Your task to perform on an android device: set default search engine in the chrome app Image 0: 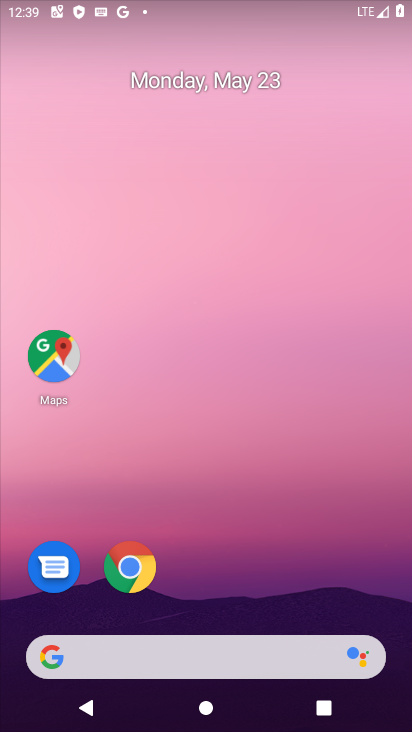
Step 0: click (150, 568)
Your task to perform on an android device: set default search engine in the chrome app Image 1: 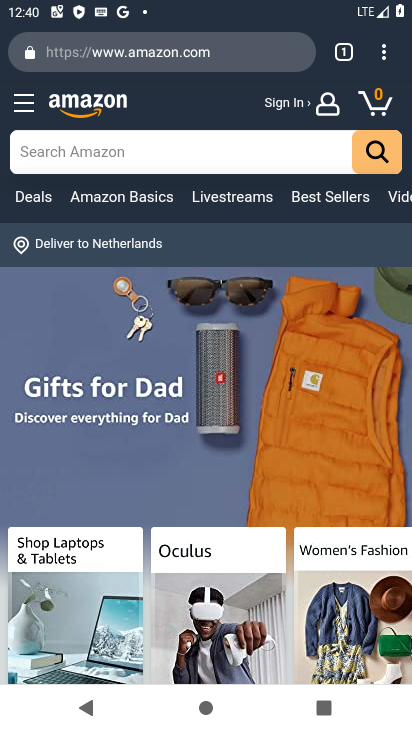
Step 1: click (391, 51)
Your task to perform on an android device: set default search engine in the chrome app Image 2: 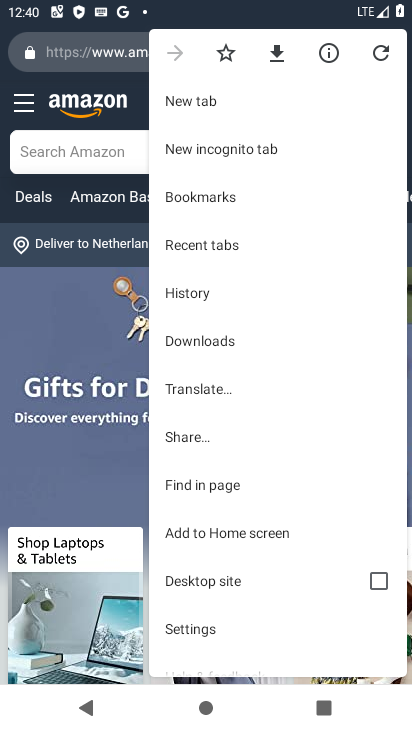
Step 2: click (239, 621)
Your task to perform on an android device: set default search engine in the chrome app Image 3: 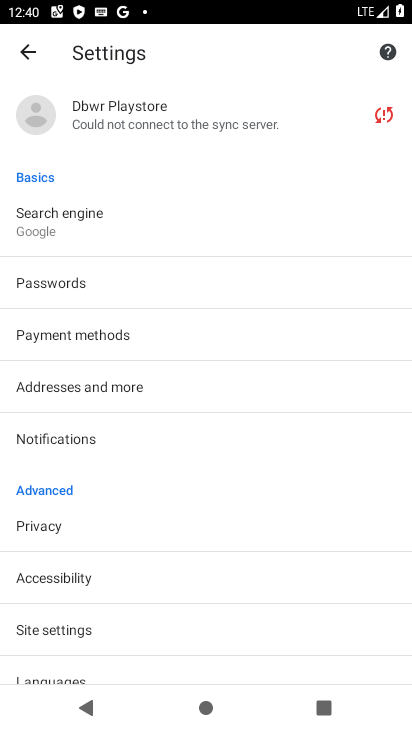
Step 3: click (167, 228)
Your task to perform on an android device: set default search engine in the chrome app Image 4: 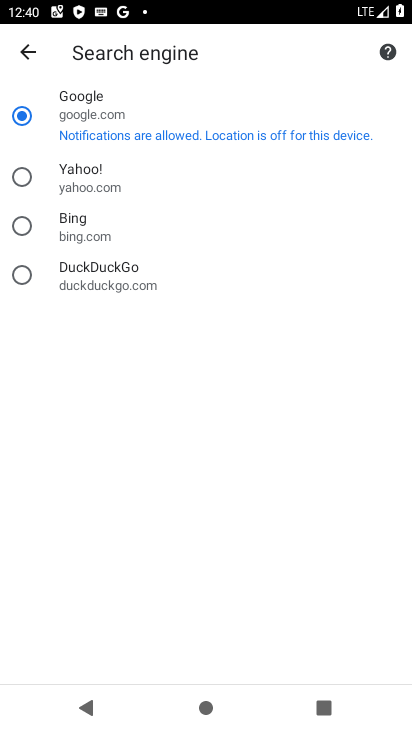
Step 4: click (130, 187)
Your task to perform on an android device: set default search engine in the chrome app Image 5: 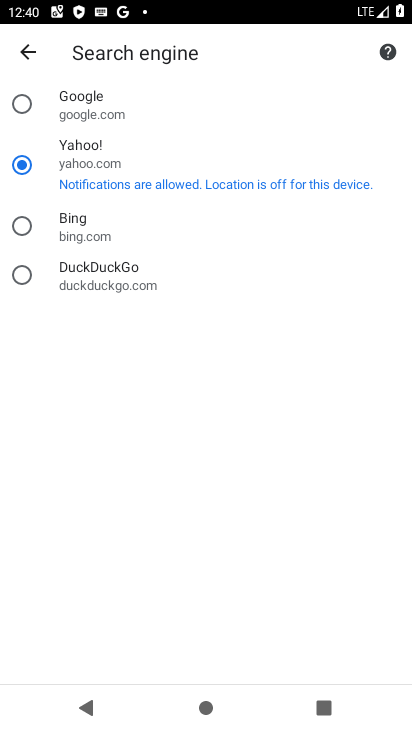
Step 5: task complete